Your task to perform on an android device: change the clock display to analog Image 0: 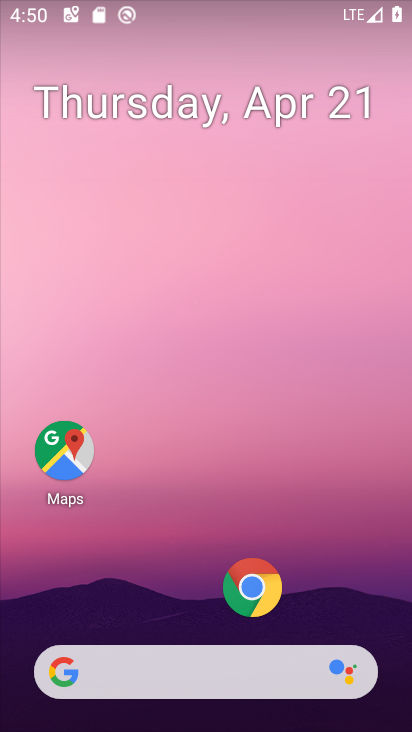
Step 0: drag from (94, 636) to (224, 87)
Your task to perform on an android device: change the clock display to analog Image 1: 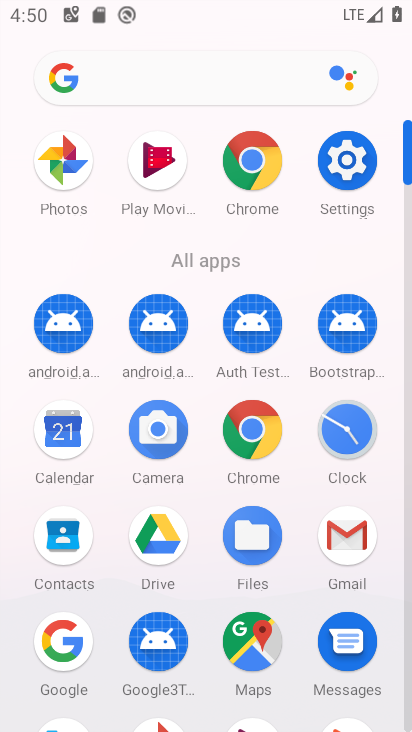
Step 1: click (354, 424)
Your task to perform on an android device: change the clock display to analog Image 2: 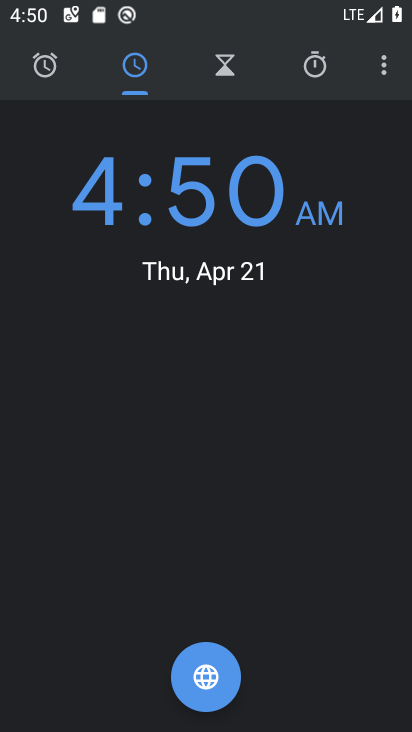
Step 2: click (372, 62)
Your task to perform on an android device: change the clock display to analog Image 3: 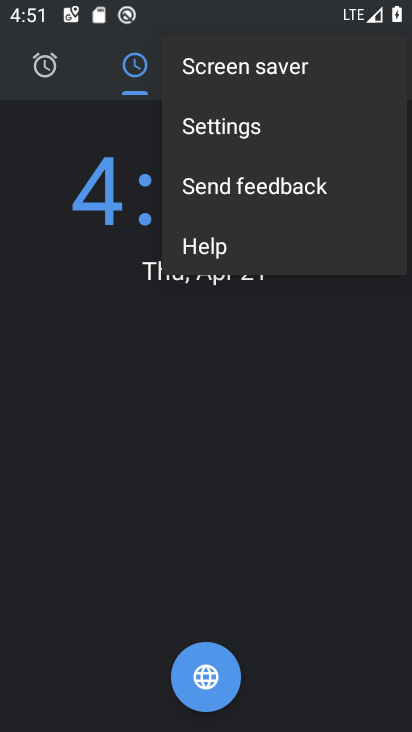
Step 3: click (346, 125)
Your task to perform on an android device: change the clock display to analog Image 4: 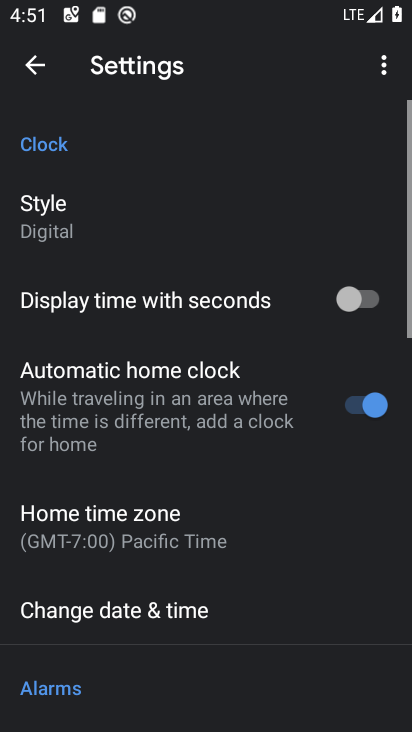
Step 4: click (201, 224)
Your task to perform on an android device: change the clock display to analog Image 5: 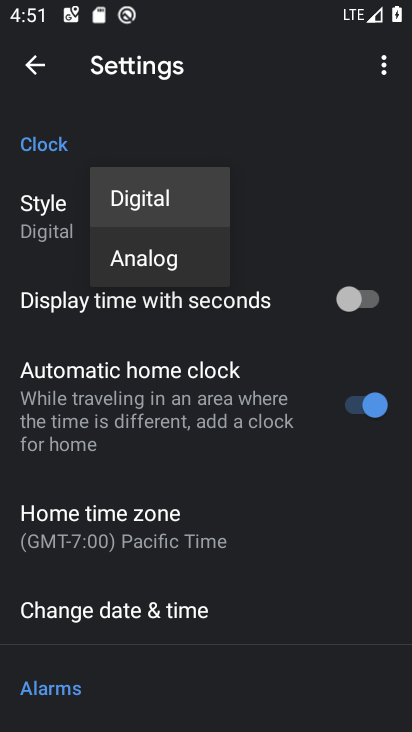
Step 5: click (176, 275)
Your task to perform on an android device: change the clock display to analog Image 6: 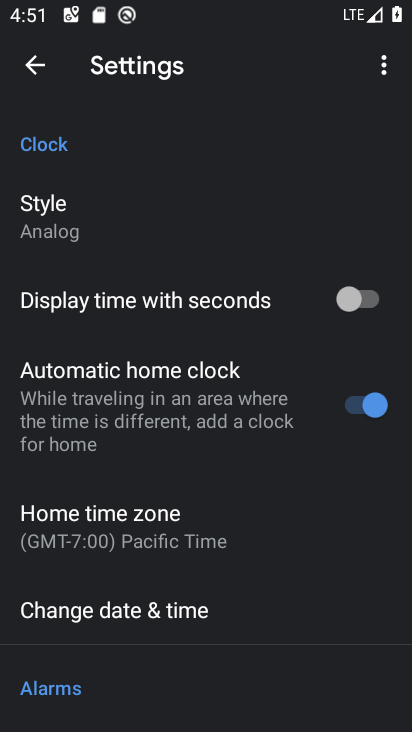
Step 6: task complete